Your task to perform on an android device: Show me recent news Image 0: 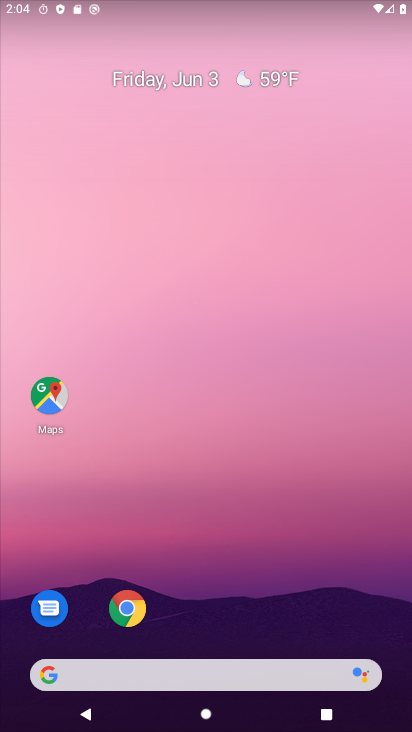
Step 0: drag from (19, 291) to (410, 279)
Your task to perform on an android device: Show me recent news Image 1: 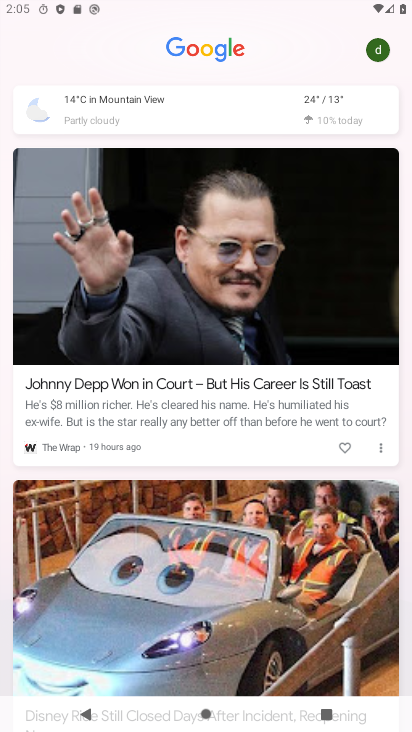
Step 1: task complete